Your task to perform on an android device: visit the assistant section in the google photos Image 0: 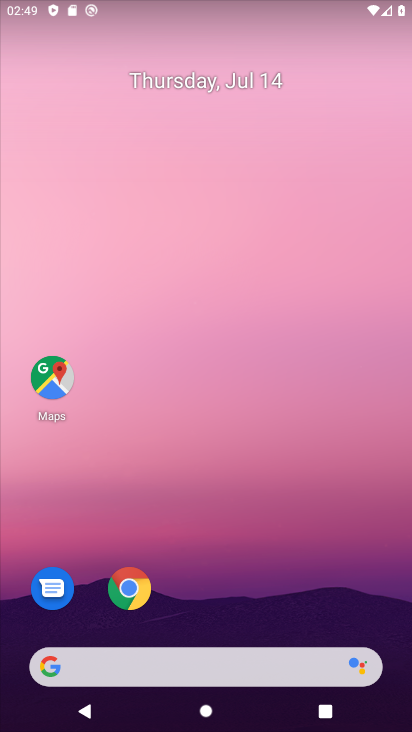
Step 0: drag from (226, 599) to (153, 54)
Your task to perform on an android device: visit the assistant section in the google photos Image 1: 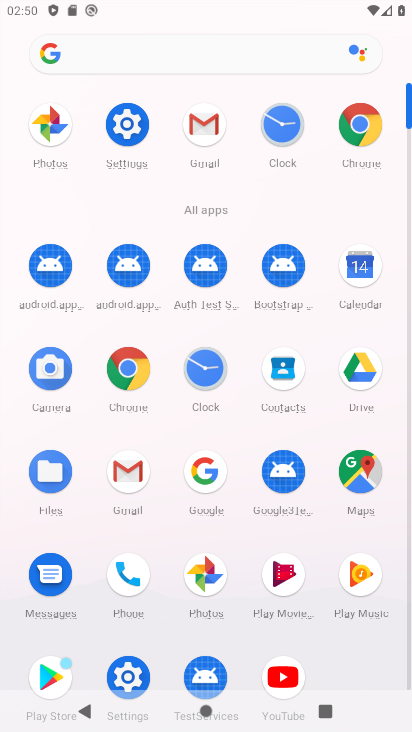
Step 1: click (53, 128)
Your task to perform on an android device: visit the assistant section in the google photos Image 2: 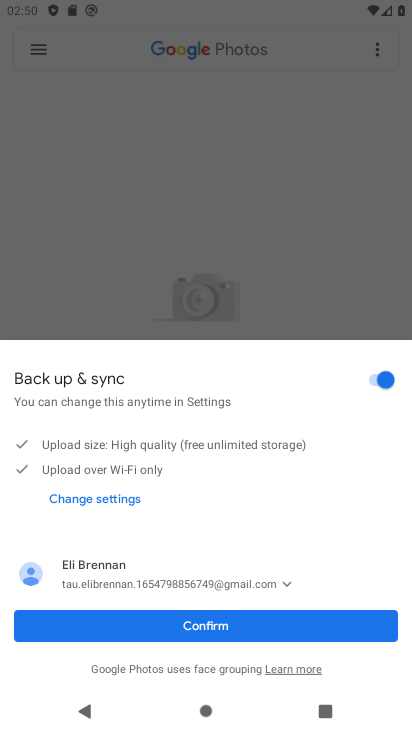
Step 2: click (264, 637)
Your task to perform on an android device: visit the assistant section in the google photos Image 3: 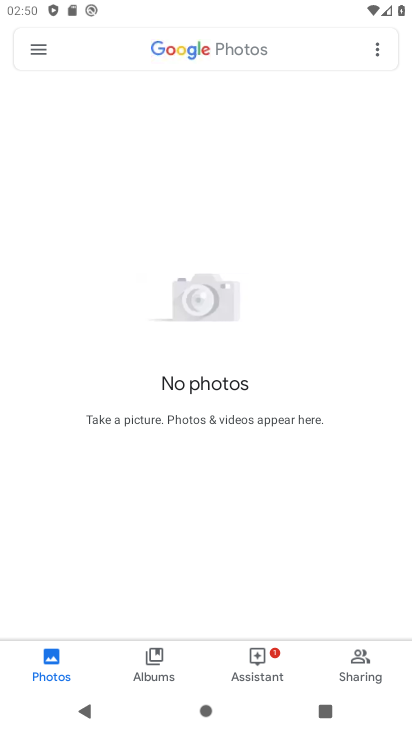
Step 3: click (265, 653)
Your task to perform on an android device: visit the assistant section in the google photos Image 4: 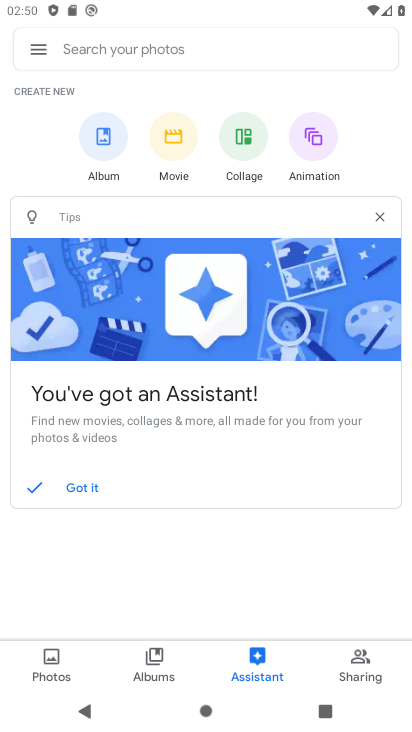
Step 4: task complete